Your task to perform on an android device: see tabs open on other devices in the chrome app Image 0: 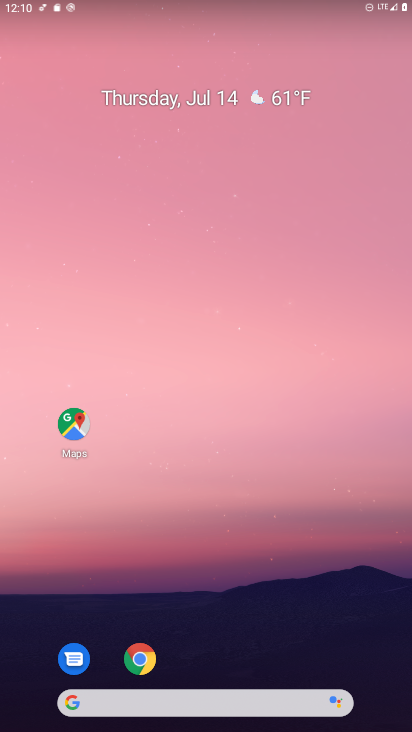
Step 0: click (139, 659)
Your task to perform on an android device: see tabs open on other devices in the chrome app Image 1: 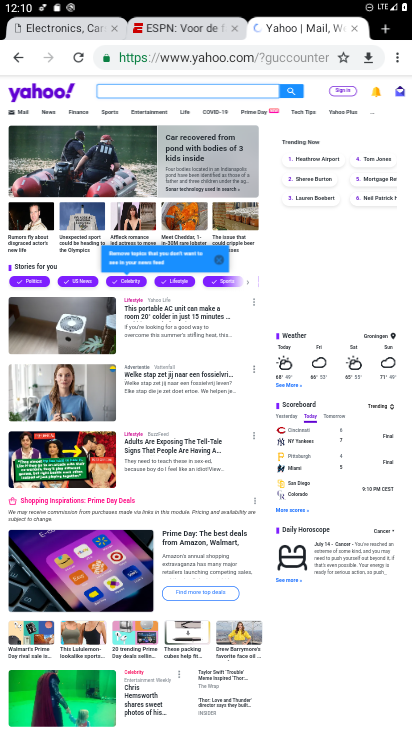
Step 1: click (398, 62)
Your task to perform on an android device: see tabs open on other devices in the chrome app Image 2: 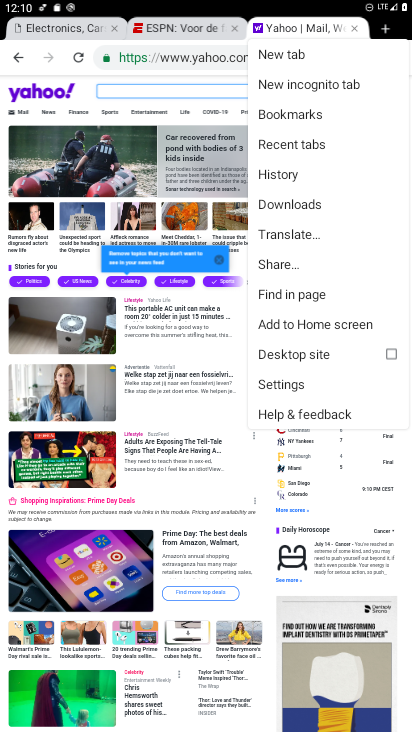
Step 2: click (285, 142)
Your task to perform on an android device: see tabs open on other devices in the chrome app Image 3: 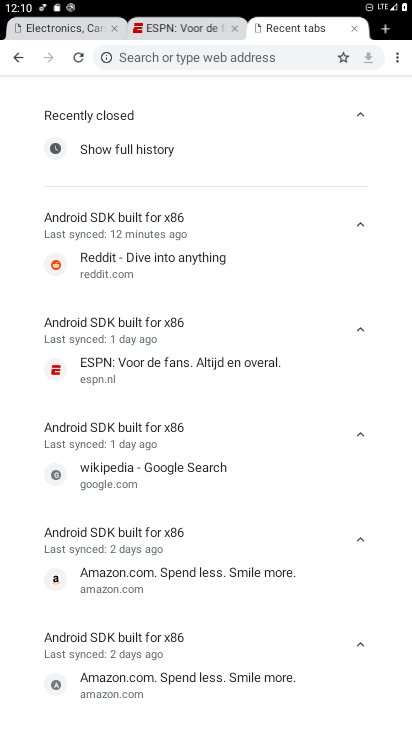
Step 3: task complete